Your task to perform on an android device: turn on data saver in the chrome app Image 0: 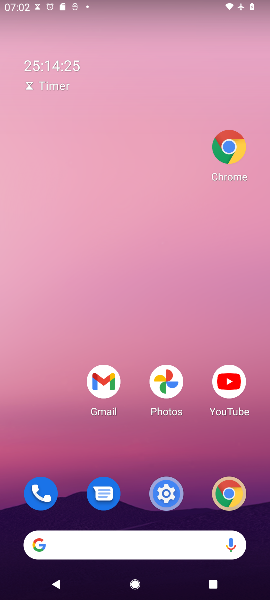
Step 0: press home button
Your task to perform on an android device: turn on data saver in the chrome app Image 1: 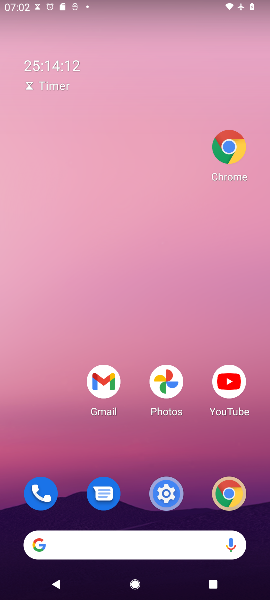
Step 1: click (230, 493)
Your task to perform on an android device: turn on data saver in the chrome app Image 2: 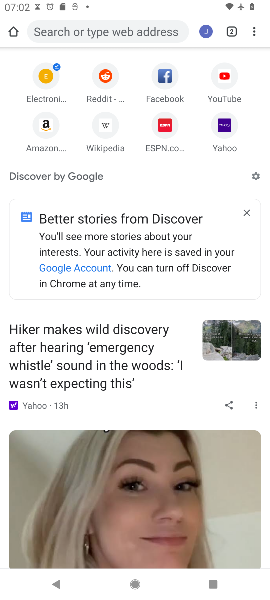
Step 2: drag from (254, 27) to (179, 306)
Your task to perform on an android device: turn on data saver in the chrome app Image 3: 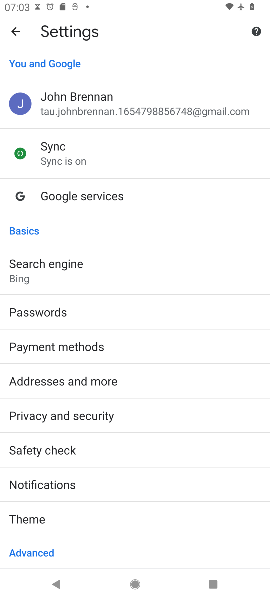
Step 3: drag from (63, 549) to (43, 294)
Your task to perform on an android device: turn on data saver in the chrome app Image 4: 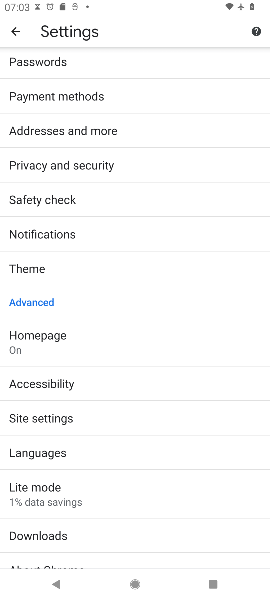
Step 4: drag from (83, 304) to (100, 206)
Your task to perform on an android device: turn on data saver in the chrome app Image 5: 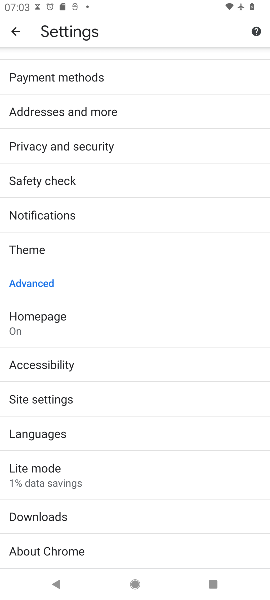
Step 5: click (67, 488)
Your task to perform on an android device: turn on data saver in the chrome app Image 6: 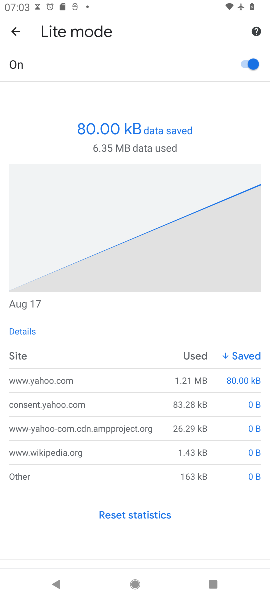
Step 6: task complete